Your task to perform on an android device: set the stopwatch Image 0: 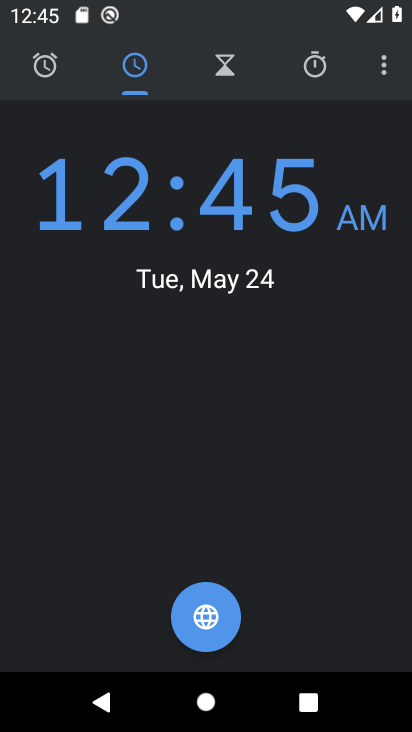
Step 0: click (318, 74)
Your task to perform on an android device: set the stopwatch Image 1: 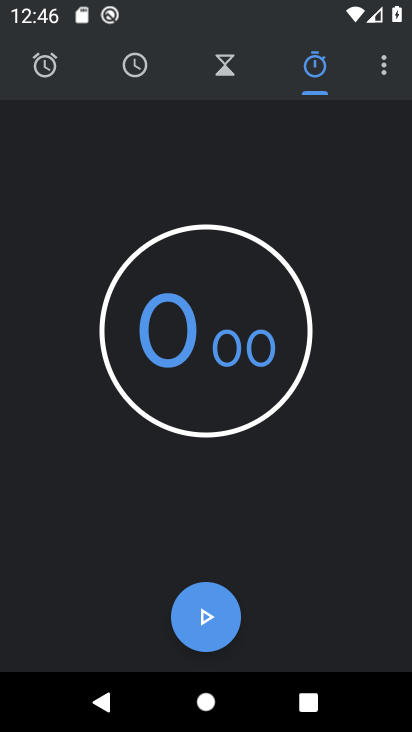
Step 1: task complete